Your task to perform on an android device: Go to ESPN.com Image 0: 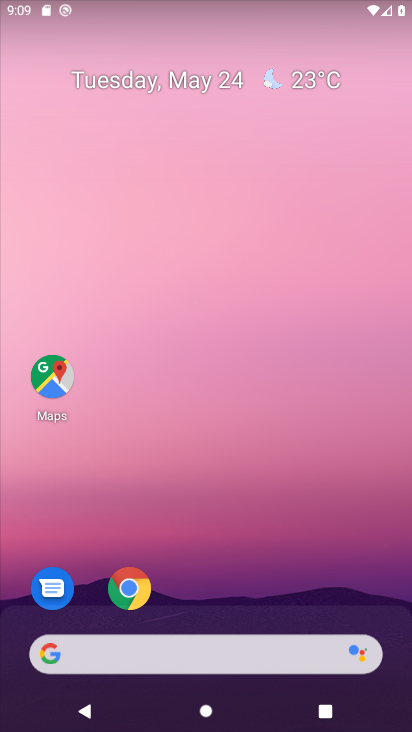
Step 0: click (126, 585)
Your task to perform on an android device: Go to ESPN.com Image 1: 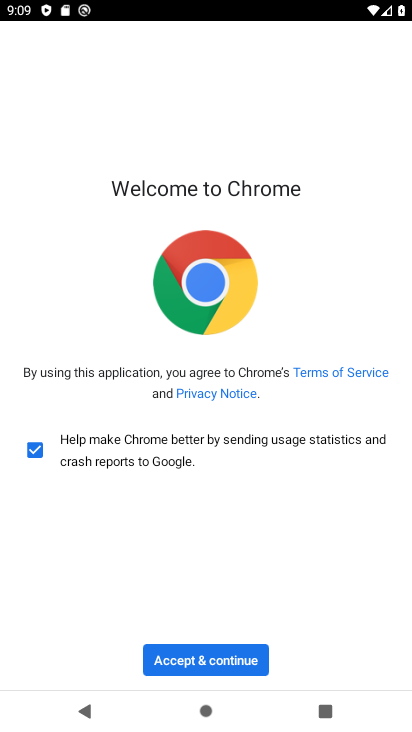
Step 1: click (205, 662)
Your task to perform on an android device: Go to ESPN.com Image 2: 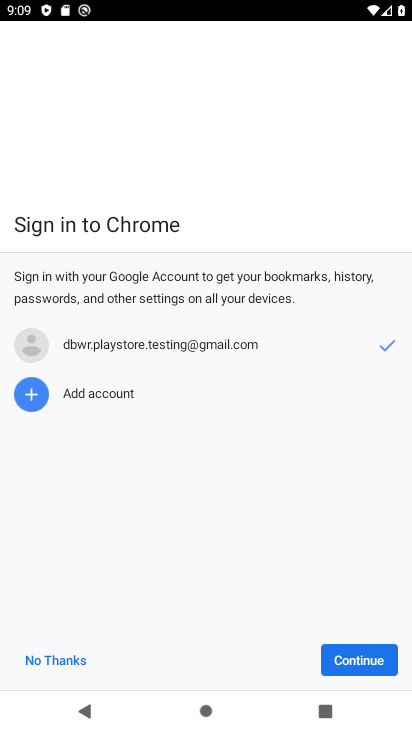
Step 2: click (366, 652)
Your task to perform on an android device: Go to ESPN.com Image 3: 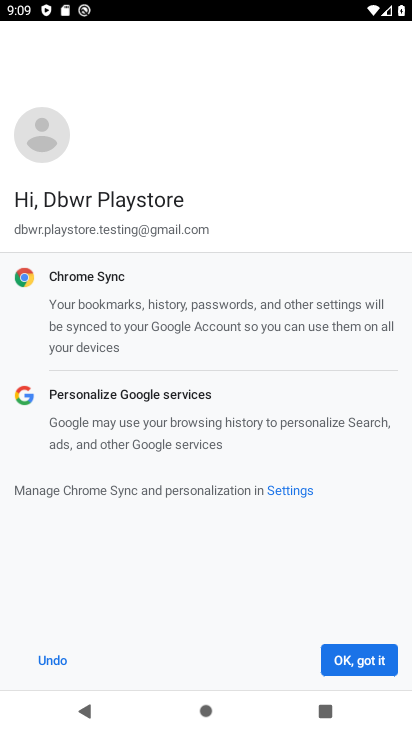
Step 3: click (366, 652)
Your task to perform on an android device: Go to ESPN.com Image 4: 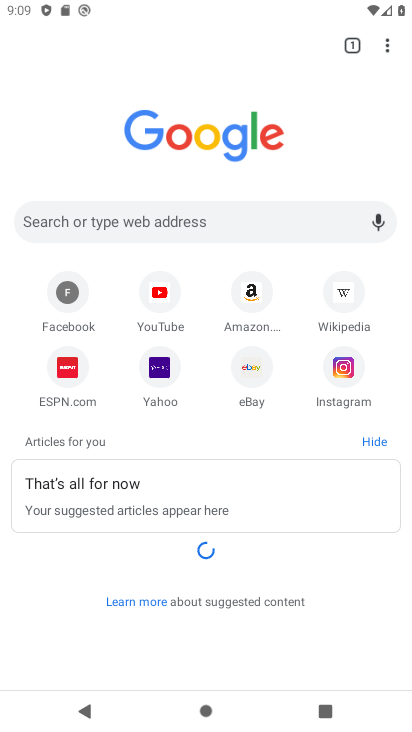
Step 4: click (132, 211)
Your task to perform on an android device: Go to ESPN.com Image 5: 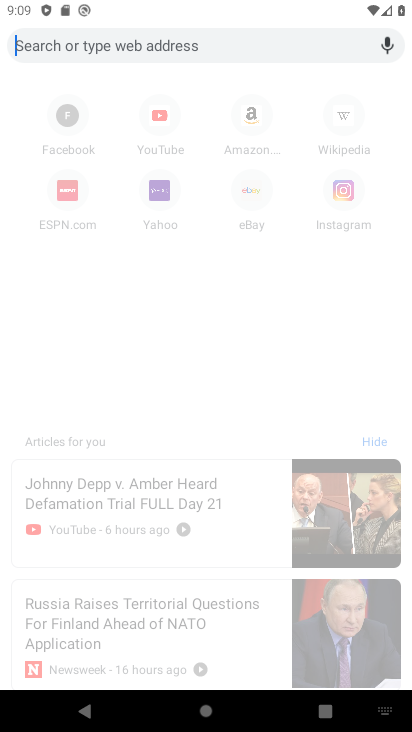
Step 5: click (75, 196)
Your task to perform on an android device: Go to ESPN.com Image 6: 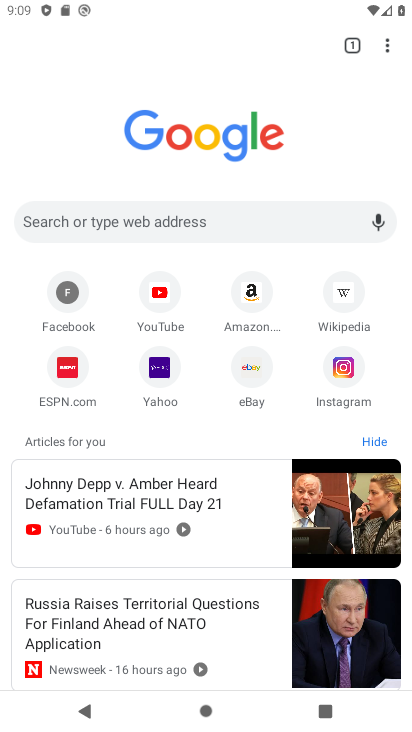
Step 6: click (62, 379)
Your task to perform on an android device: Go to ESPN.com Image 7: 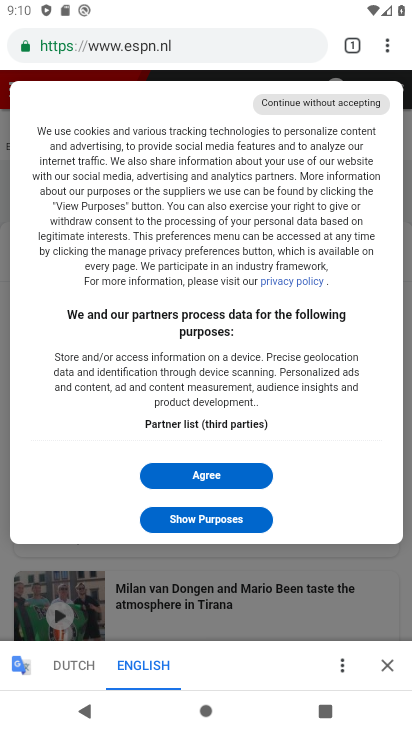
Step 7: task complete